Your task to perform on an android device: check the backup settings in the google photos Image 0: 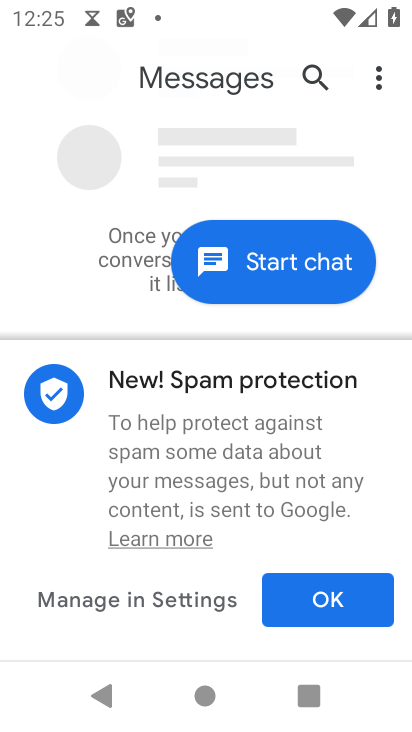
Step 0: drag from (335, 545) to (328, 14)
Your task to perform on an android device: check the backup settings in the google photos Image 1: 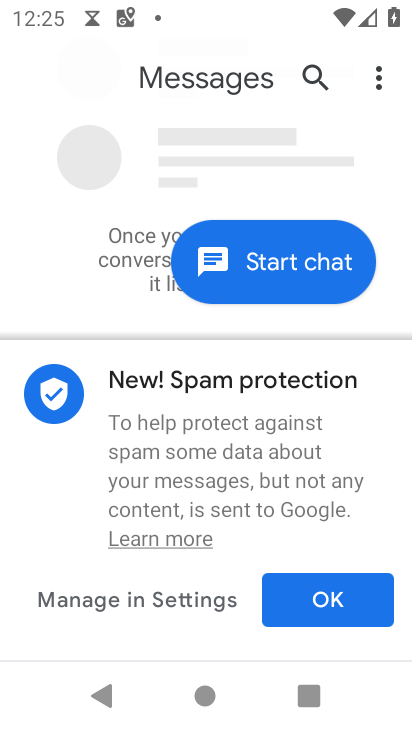
Step 1: press home button
Your task to perform on an android device: check the backup settings in the google photos Image 2: 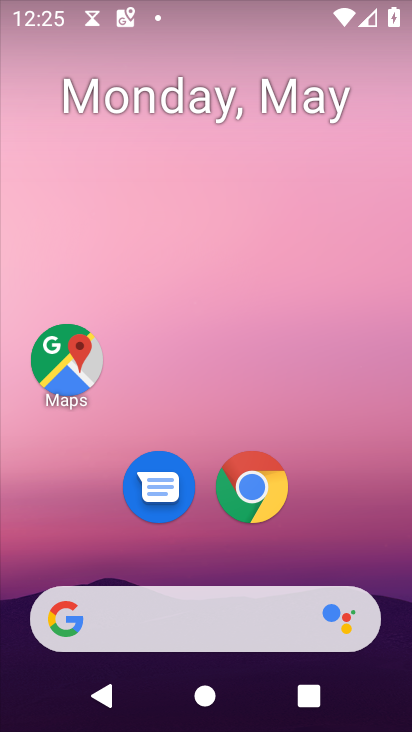
Step 2: drag from (354, 549) to (393, 0)
Your task to perform on an android device: check the backup settings in the google photos Image 3: 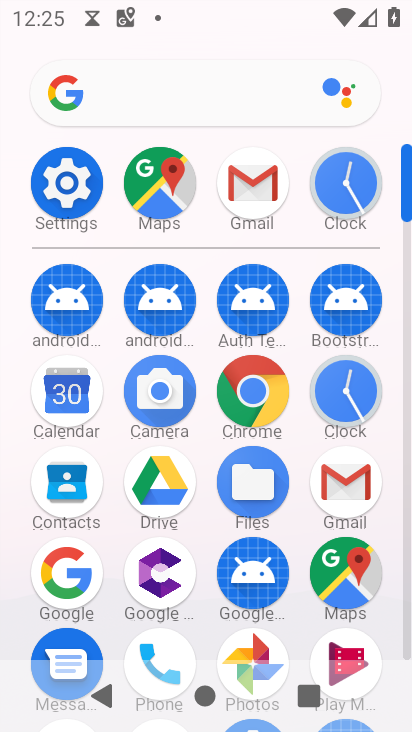
Step 3: click (258, 648)
Your task to perform on an android device: check the backup settings in the google photos Image 4: 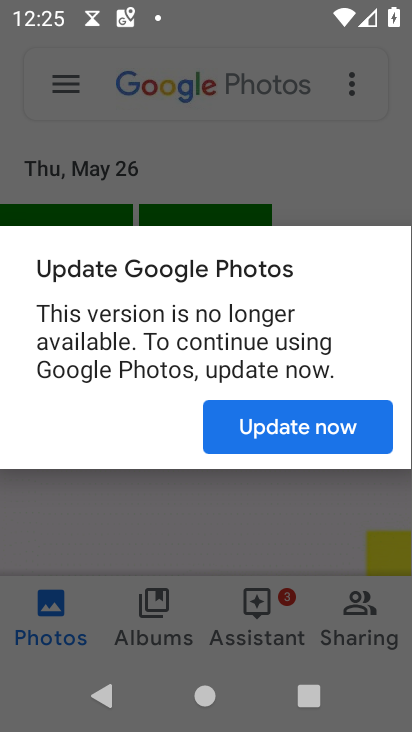
Step 4: click (322, 429)
Your task to perform on an android device: check the backup settings in the google photos Image 5: 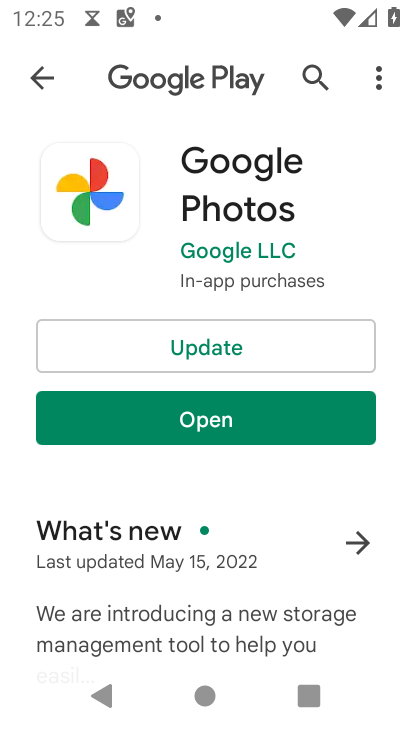
Step 5: click (170, 332)
Your task to perform on an android device: check the backup settings in the google photos Image 6: 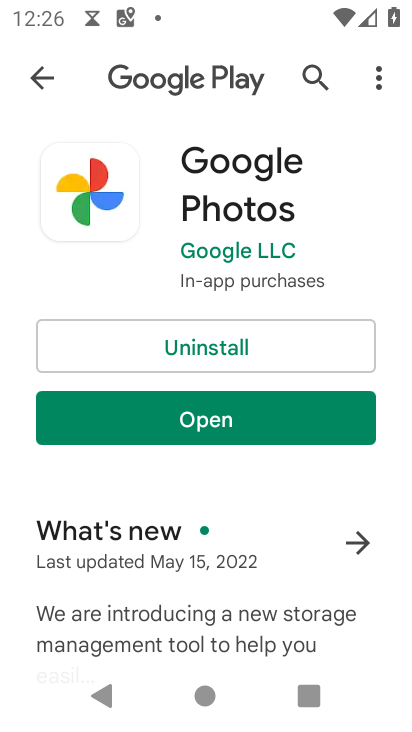
Step 6: click (265, 419)
Your task to perform on an android device: check the backup settings in the google photos Image 7: 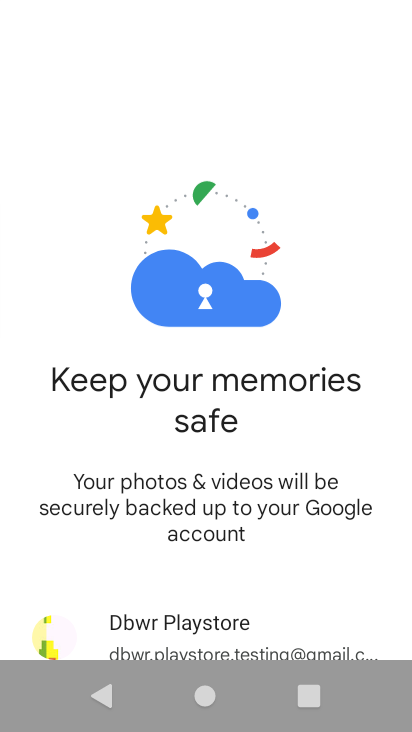
Step 7: drag from (287, 618) to (289, 349)
Your task to perform on an android device: check the backup settings in the google photos Image 8: 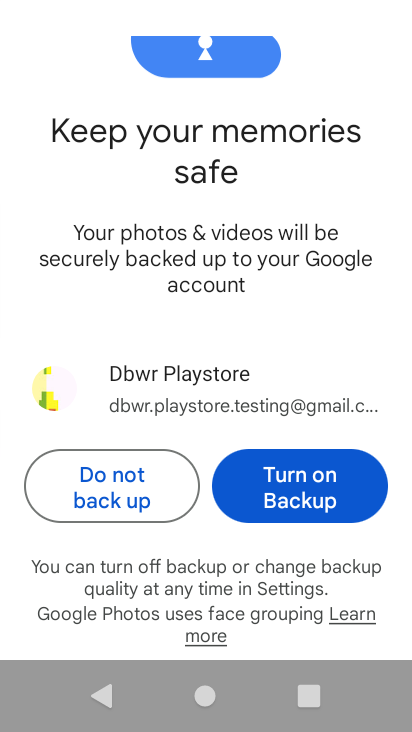
Step 8: drag from (266, 596) to (297, 162)
Your task to perform on an android device: check the backup settings in the google photos Image 9: 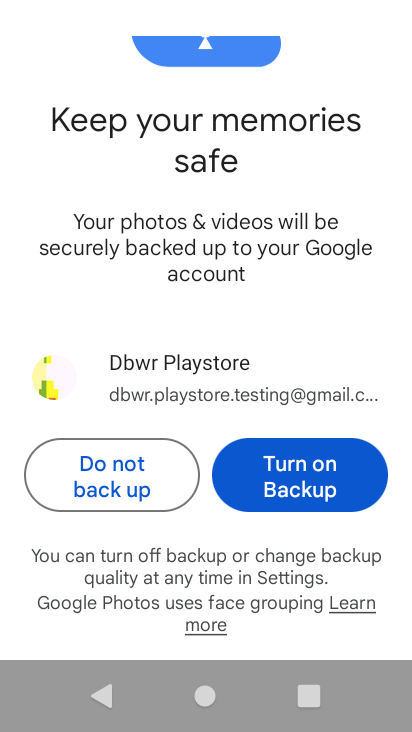
Step 9: click (283, 469)
Your task to perform on an android device: check the backup settings in the google photos Image 10: 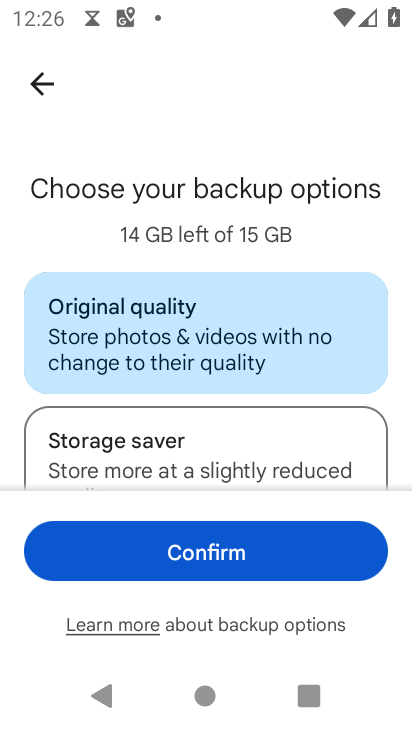
Step 10: click (254, 557)
Your task to perform on an android device: check the backup settings in the google photos Image 11: 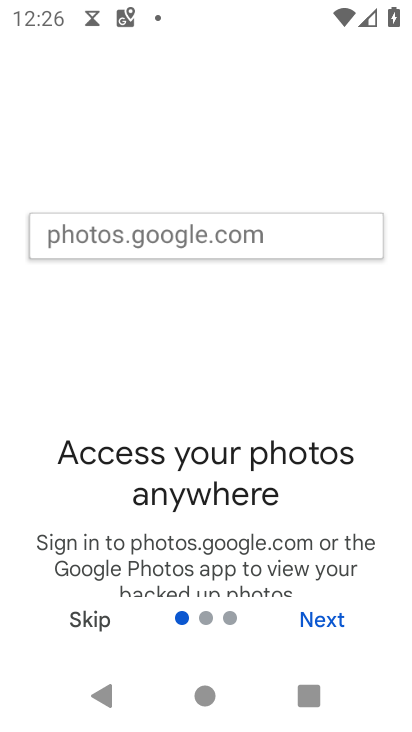
Step 11: click (302, 615)
Your task to perform on an android device: check the backup settings in the google photos Image 12: 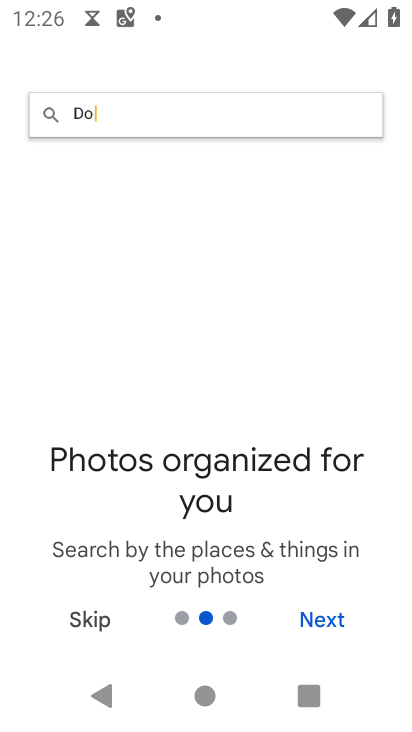
Step 12: click (302, 615)
Your task to perform on an android device: check the backup settings in the google photos Image 13: 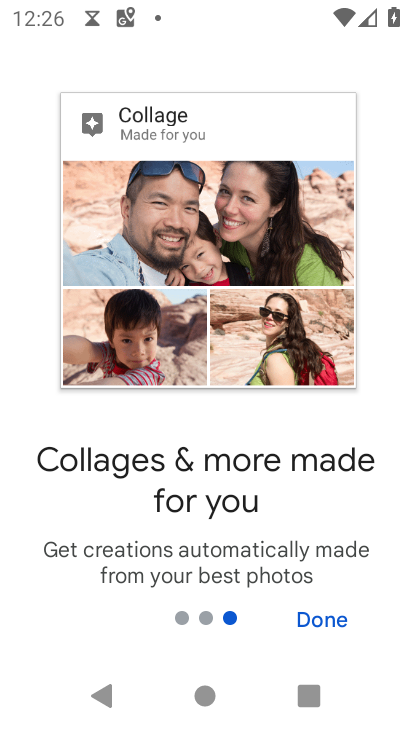
Step 13: click (302, 615)
Your task to perform on an android device: check the backup settings in the google photos Image 14: 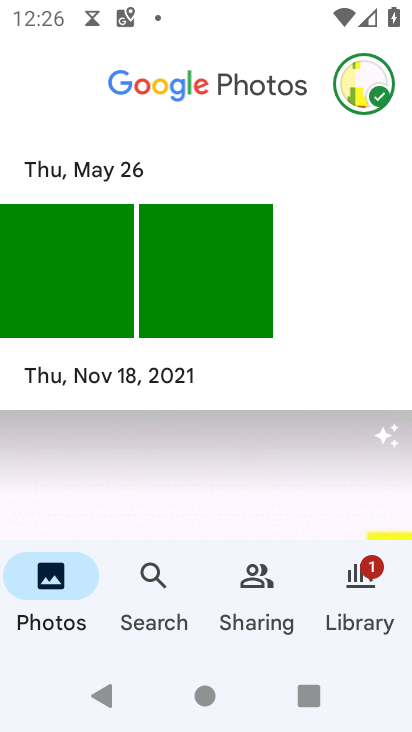
Step 14: click (349, 85)
Your task to perform on an android device: check the backup settings in the google photos Image 15: 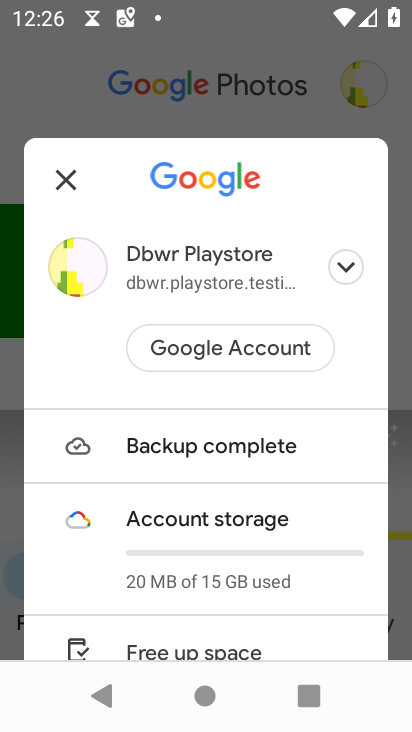
Step 15: drag from (198, 483) to (201, 232)
Your task to perform on an android device: check the backup settings in the google photos Image 16: 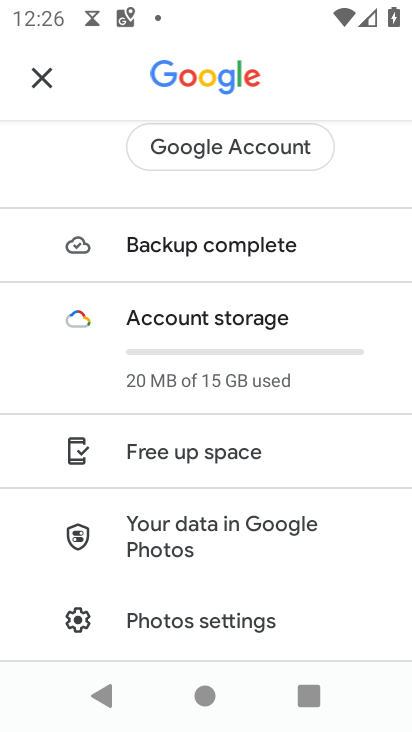
Step 16: click (183, 612)
Your task to perform on an android device: check the backup settings in the google photos Image 17: 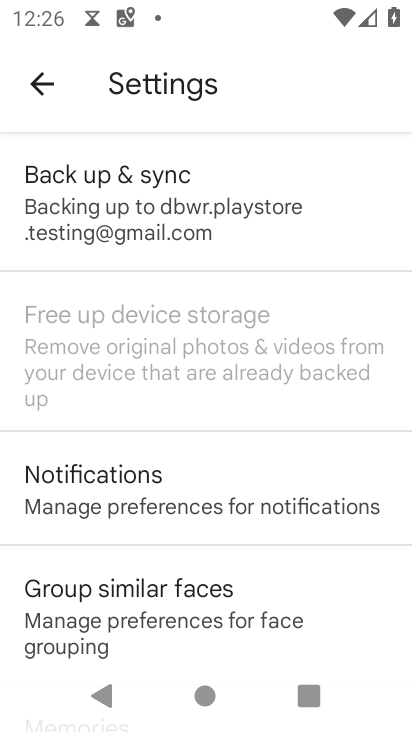
Step 17: click (82, 235)
Your task to perform on an android device: check the backup settings in the google photos Image 18: 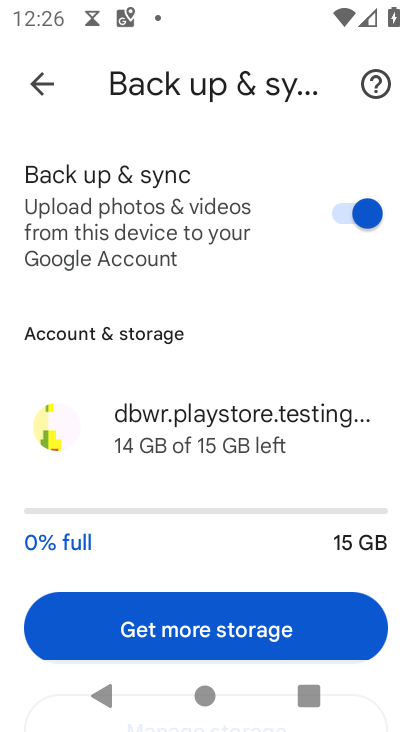
Step 18: task complete